Your task to perform on an android device: Open the phone app and click the voicemail tab. Image 0: 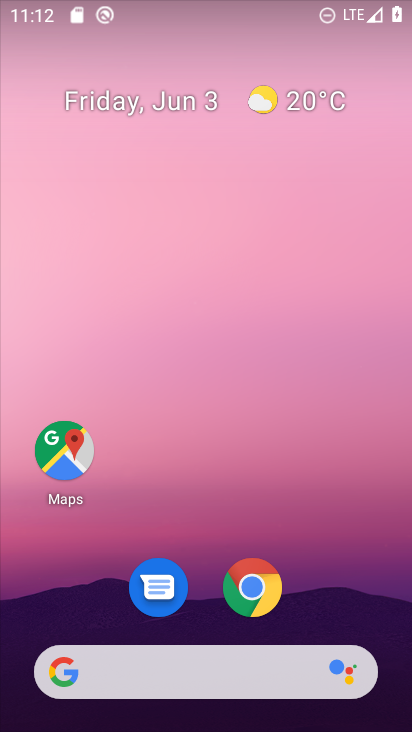
Step 0: drag from (369, 418) to (342, 39)
Your task to perform on an android device: Open the phone app and click the voicemail tab. Image 1: 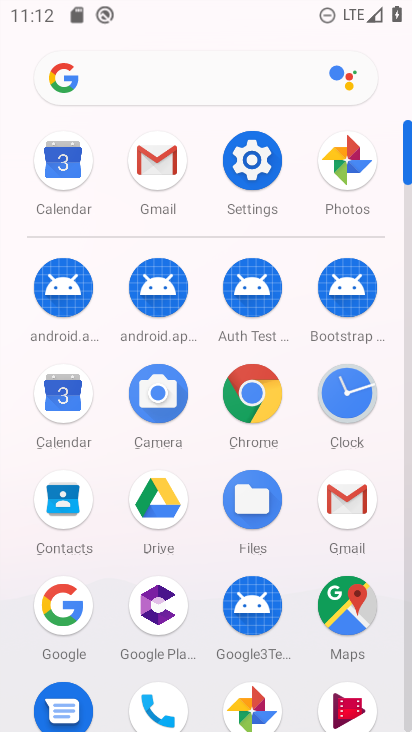
Step 1: click (133, 682)
Your task to perform on an android device: Open the phone app and click the voicemail tab. Image 2: 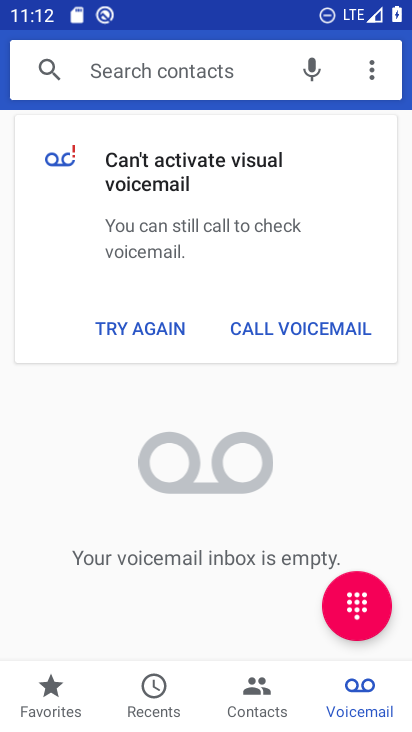
Step 2: task complete